Your task to perform on an android device: turn on data saver in the chrome app Image 0: 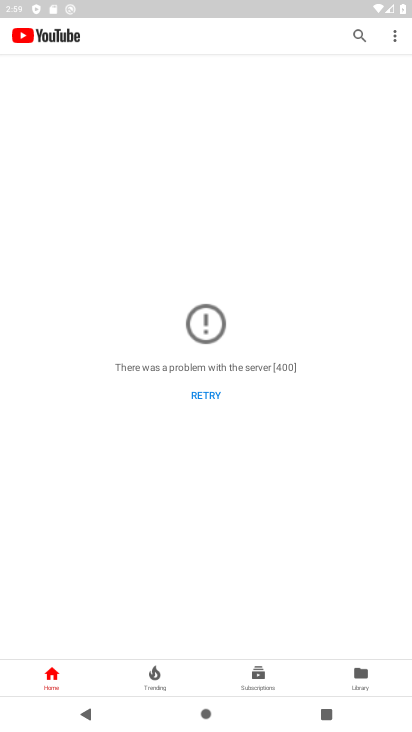
Step 0: press home button
Your task to perform on an android device: turn on data saver in the chrome app Image 1: 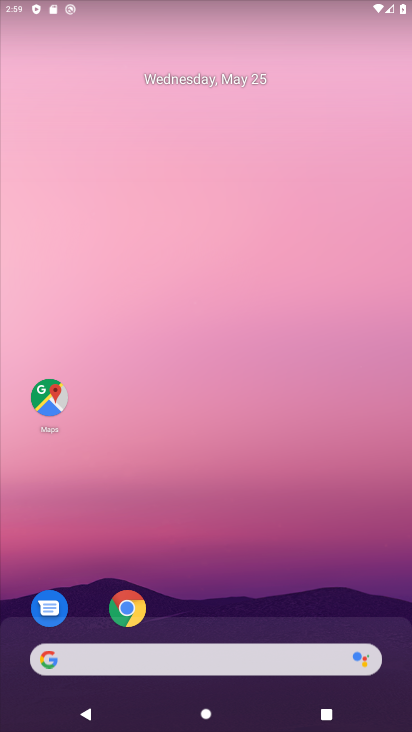
Step 1: drag from (228, 498) to (236, 126)
Your task to perform on an android device: turn on data saver in the chrome app Image 2: 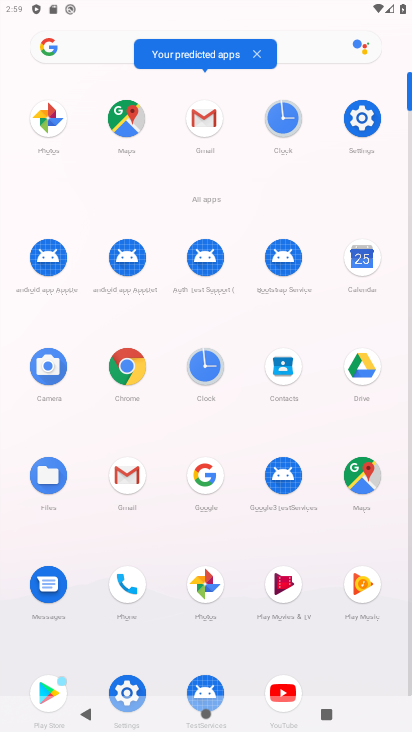
Step 2: click (125, 362)
Your task to perform on an android device: turn on data saver in the chrome app Image 3: 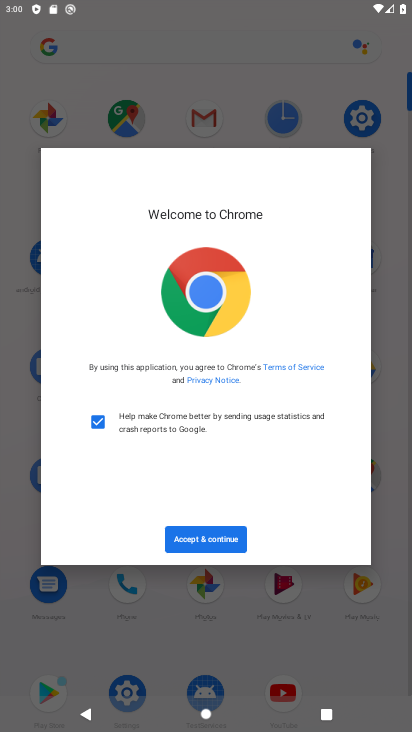
Step 3: click (226, 533)
Your task to perform on an android device: turn on data saver in the chrome app Image 4: 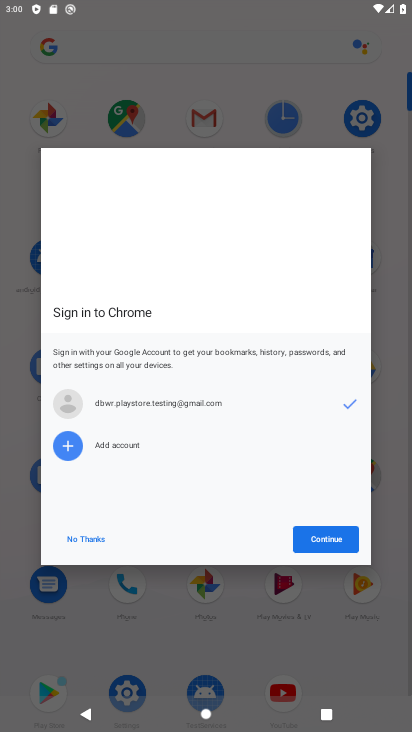
Step 4: click (323, 535)
Your task to perform on an android device: turn on data saver in the chrome app Image 5: 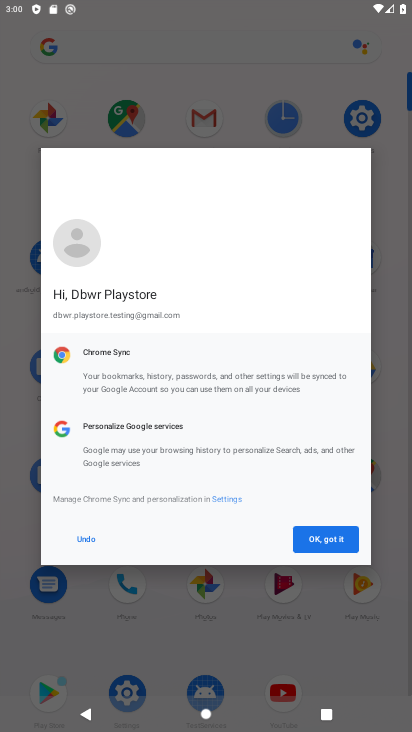
Step 5: click (323, 534)
Your task to perform on an android device: turn on data saver in the chrome app Image 6: 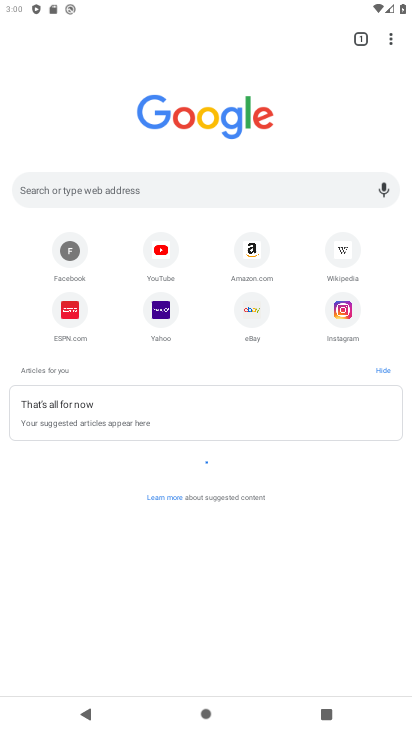
Step 6: click (391, 33)
Your task to perform on an android device: turn on data saver in the chrome app Image 7: 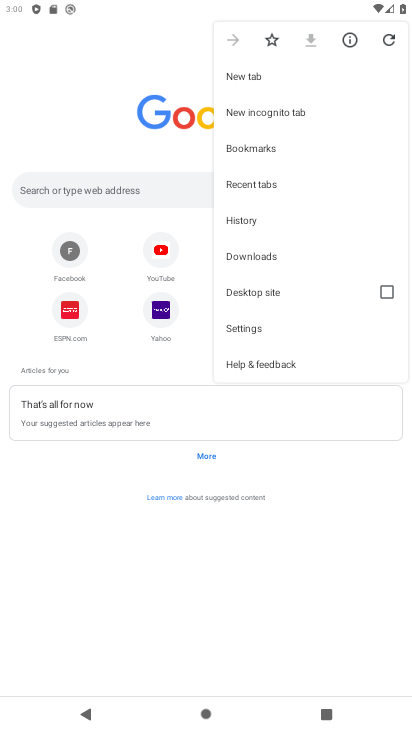
Step 7: click (246, 319)
Your task to perform on an android device: turn on data saver in the chrome app Image 8: 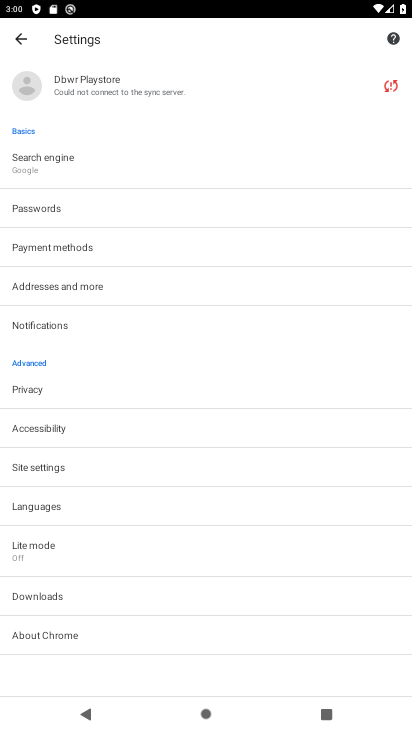
Step 8: drag from (120, 581) to (186, 357)
Your task to perform on an android device: turn on data saver in the chrome app Image 9: 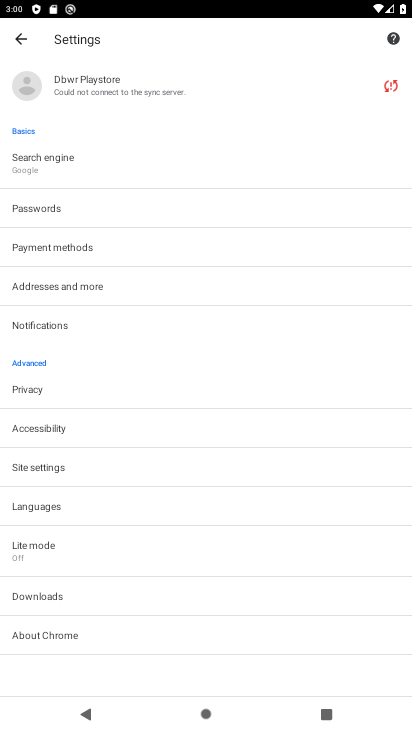
Step 9: click (59, 545)
Your task to perform on an android device: turn on data saver in the chrome app Image 10: 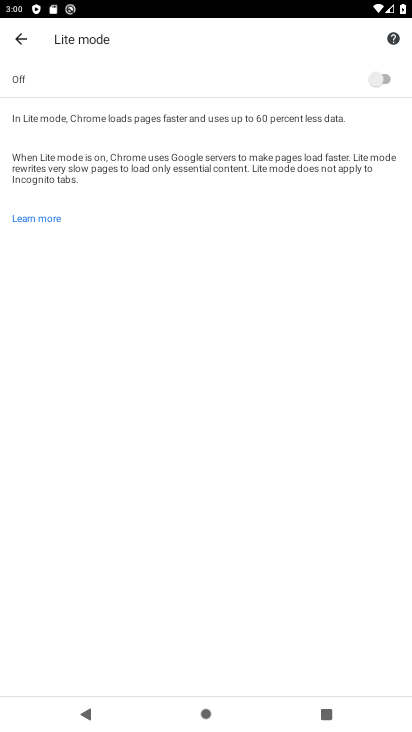
Step 10: click (369, 95)
Your task to perform on an android device: turn on data saver in the chrome app Image 11: 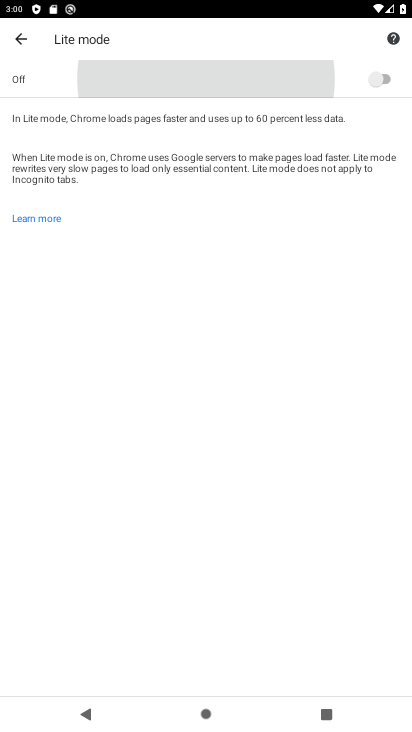
Step 11: click (380, 76)
Your task to perform on an android device: turn on data saver in the chrome app Image 12: 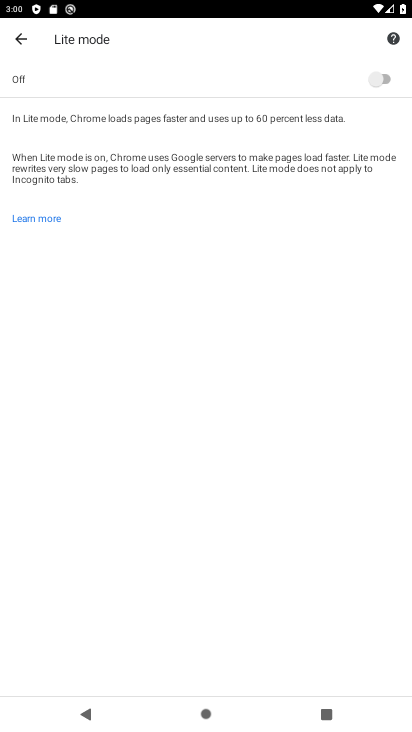
Step 12: task complete